Your task to perform on an android device: read, delete, or share a saved page in the chrome app Image 0: 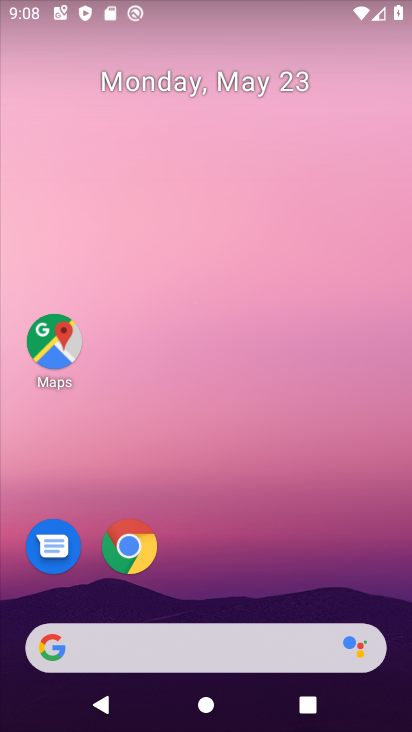
Step 0: click (134, 546)
Your task to perform on an android device: read, delete, or share a saved page in the chrome app Image 1: 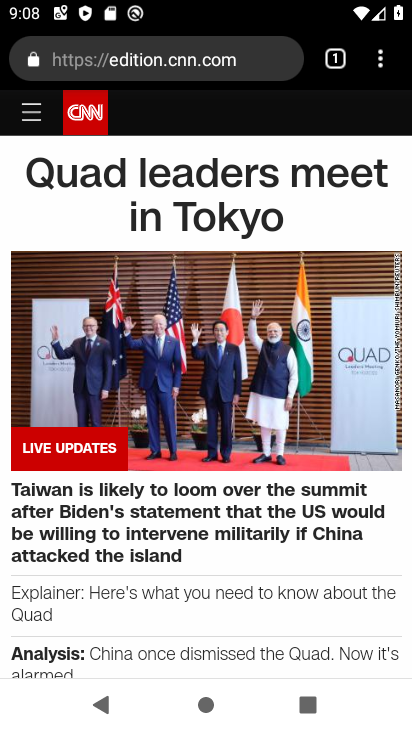
Step 1: click (377, 61)
Your task to perform on an android device: read, delete, or share a saved page in the chrome app Image 2: 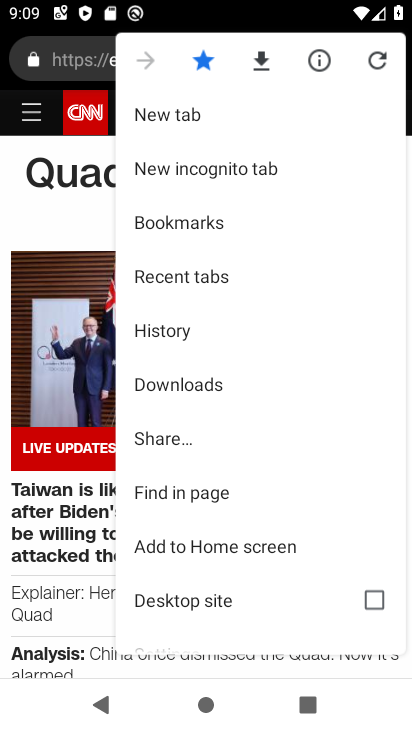
Step 2: click (181, 385)
Your task to perform on an android device: read, delete, or share a saved page in the chrome app Image 3: 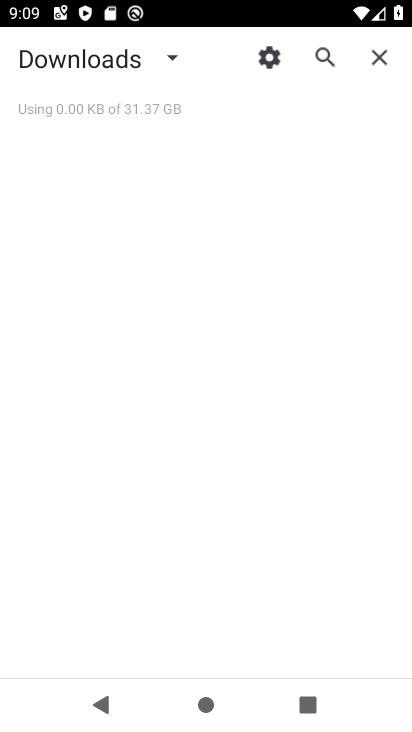
Step 3: click (171, 62)
Your task to perform on an android device: read, delete, or share a saved page in the chrome app Image 4: 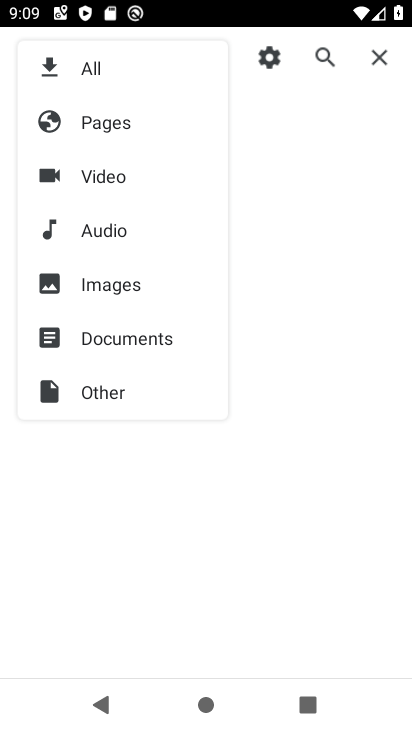
Step 4: click (86, 127)
Your task to perform on an android device: read, delete, or share a saved page in the chrome app Image 5: 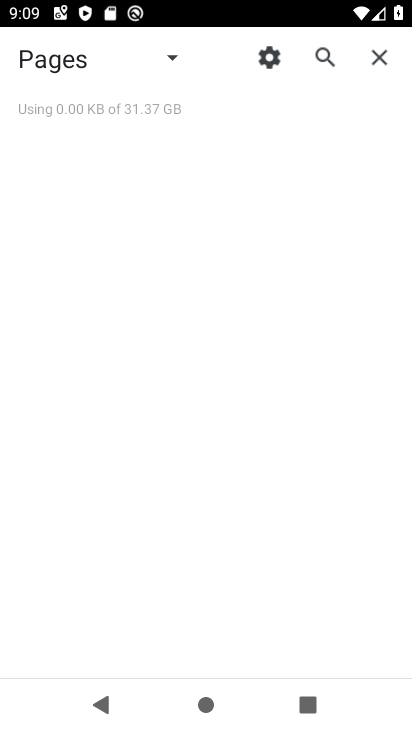
Step 5: task complete